Your task to perform on an android device: toggle show notifications on the lock screen Image 0: 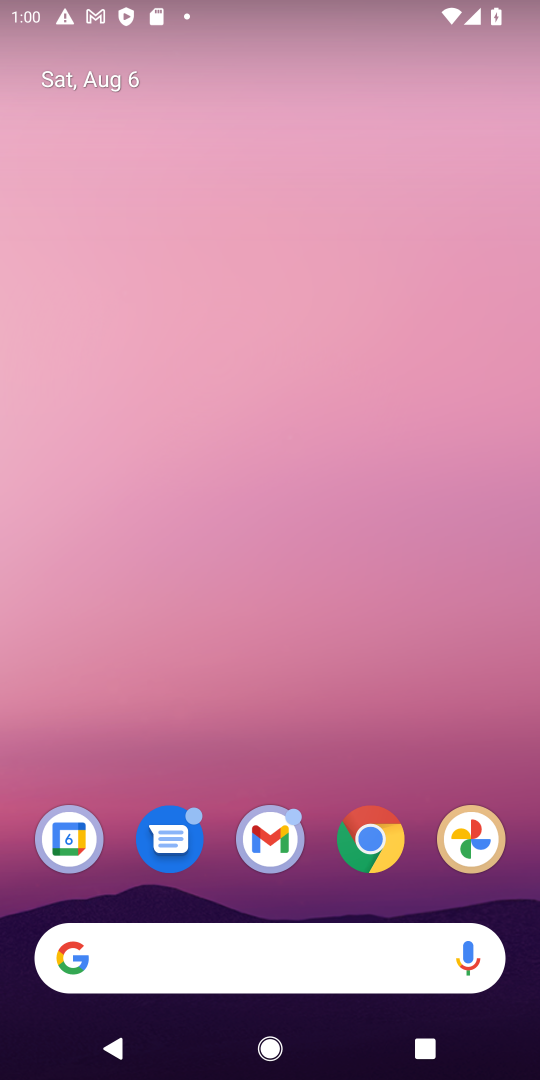
Step 0: drag from (190, 1046) to (361, 544)
Your task to perform on an android device: toggle show notifications on the lock screen Image 1: 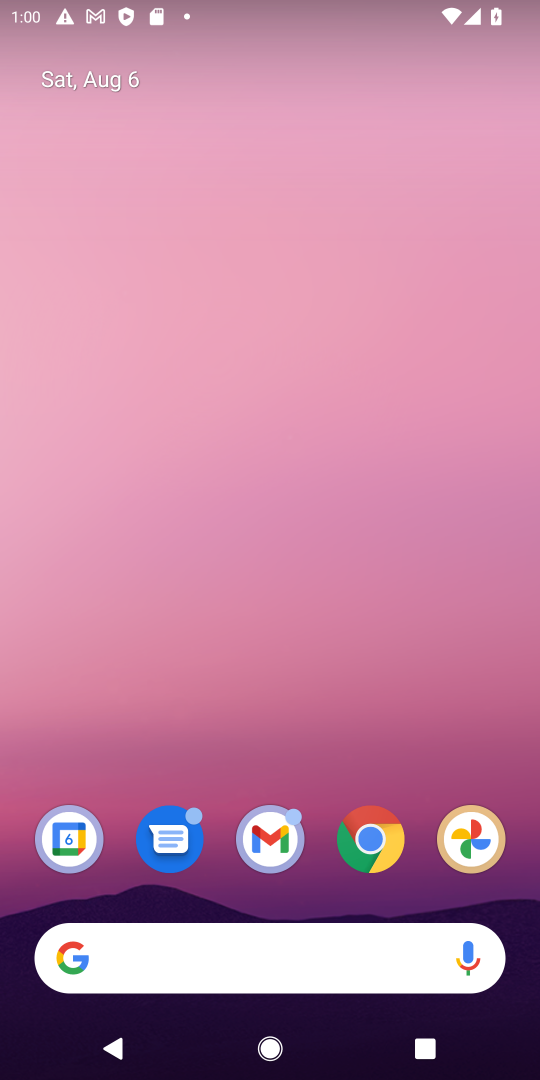
Step 1: drag from (21, 1046) to (172, 238)
Your task to perform on an android device: toggle show notifications on the lock screen Image 2: 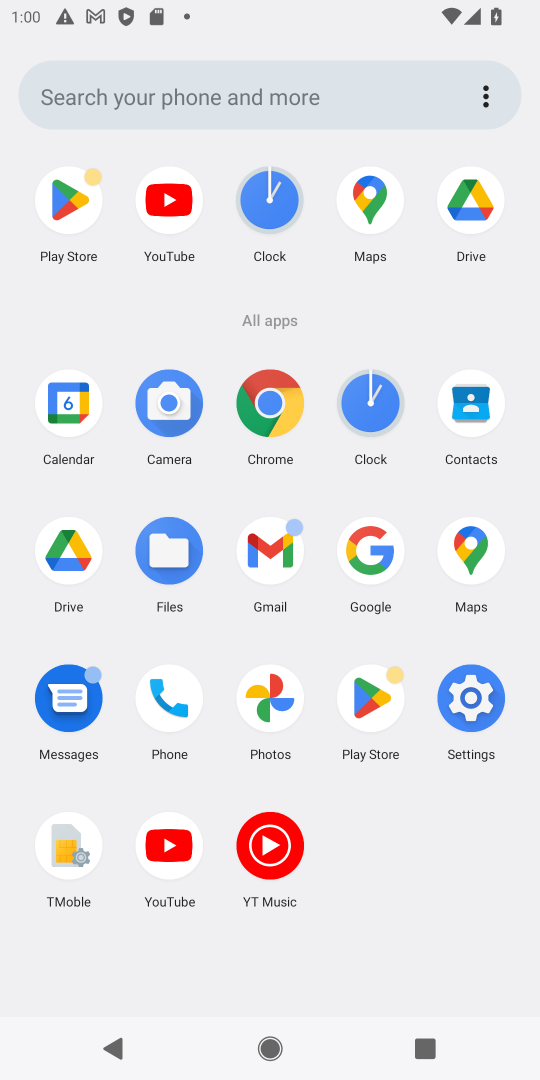
Step 2: click (456, 716)
Your task to perform on an android device: toggle show notifications on the lock screen Image 3: 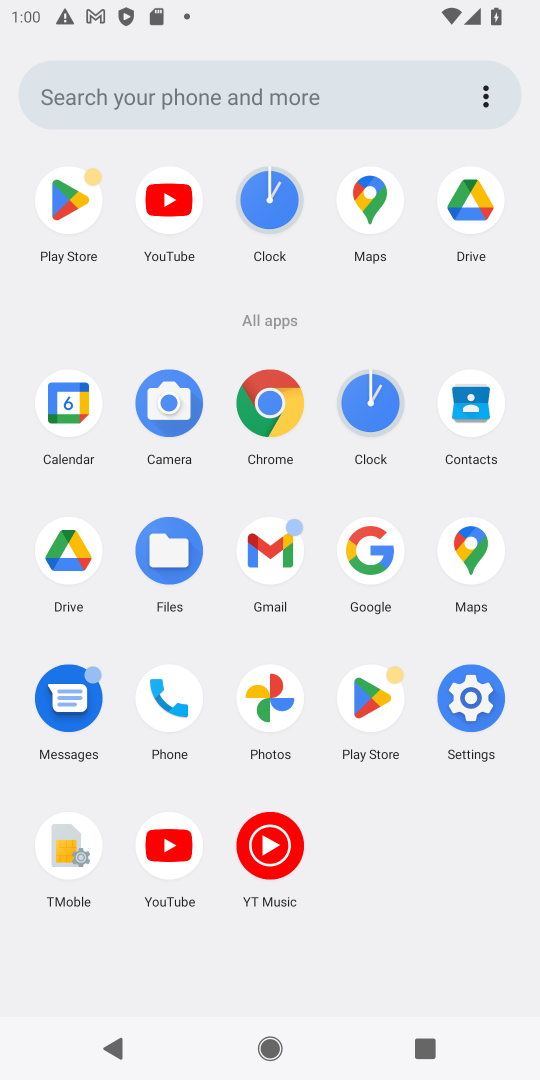
Step 3: click (456, 716)
Your task to perform on an android device: toggle show notifications on the lock screen Image 4: 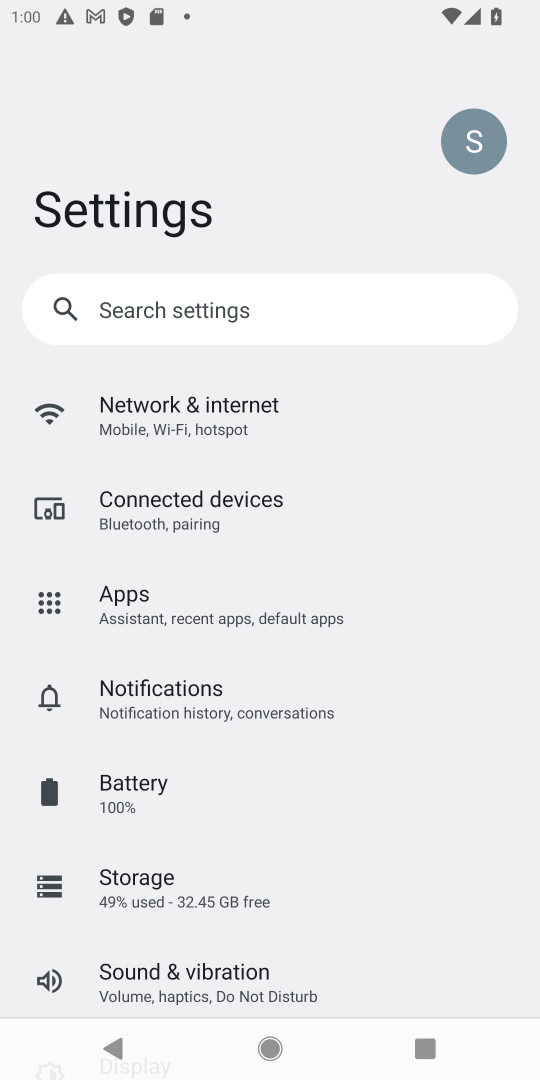
Step 4: click (248, 699)
Your task to perform on an android device: toggle show notifications on the lock screen Image 5: 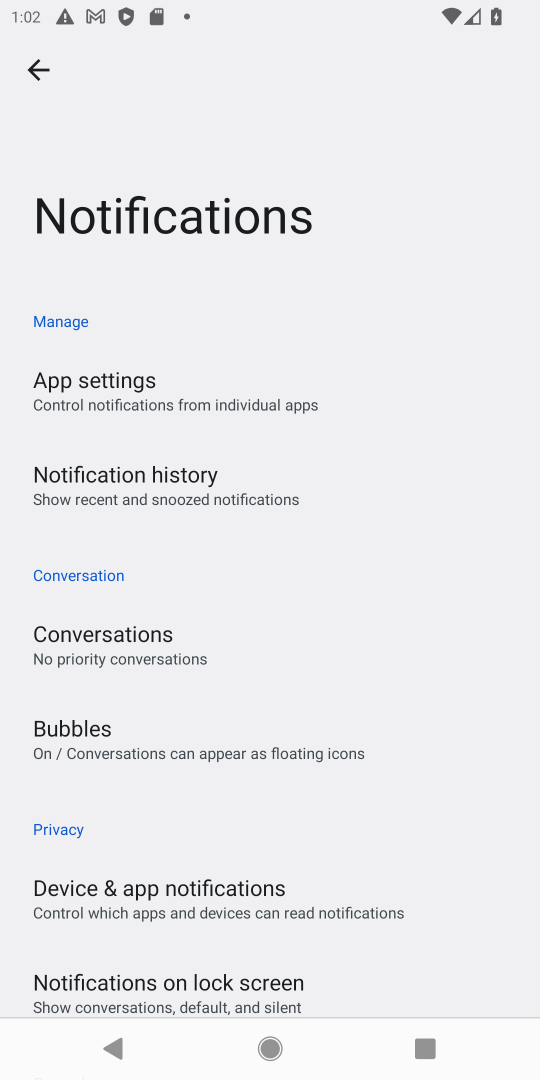
Step 5: click (295, 980)
Your task to perform on an android device: toggle show notifications on the lock screen Image 6: 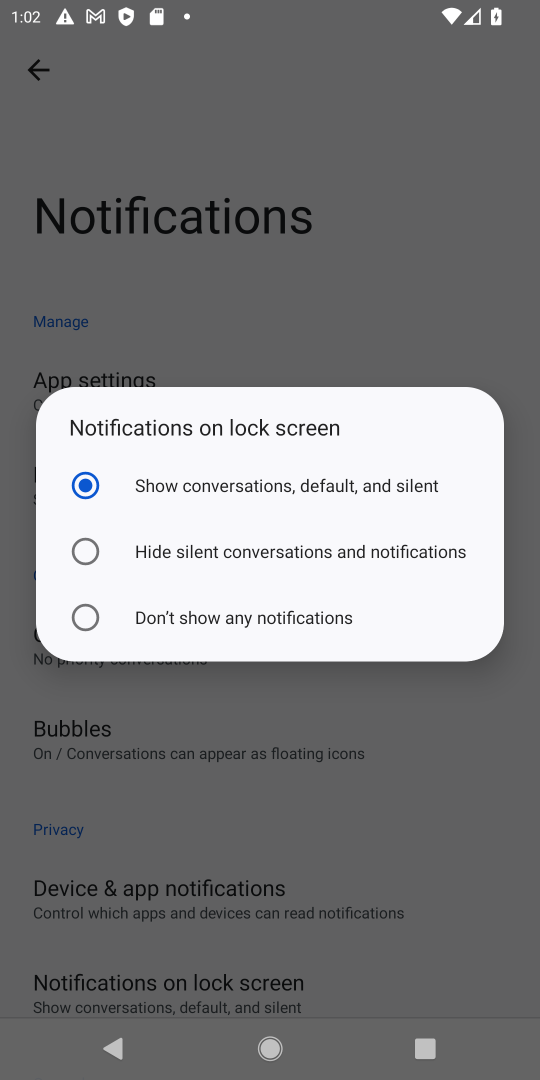
Step 6: task complete